Your task to perform on an android device: find which apps use the phone's location Image 0: 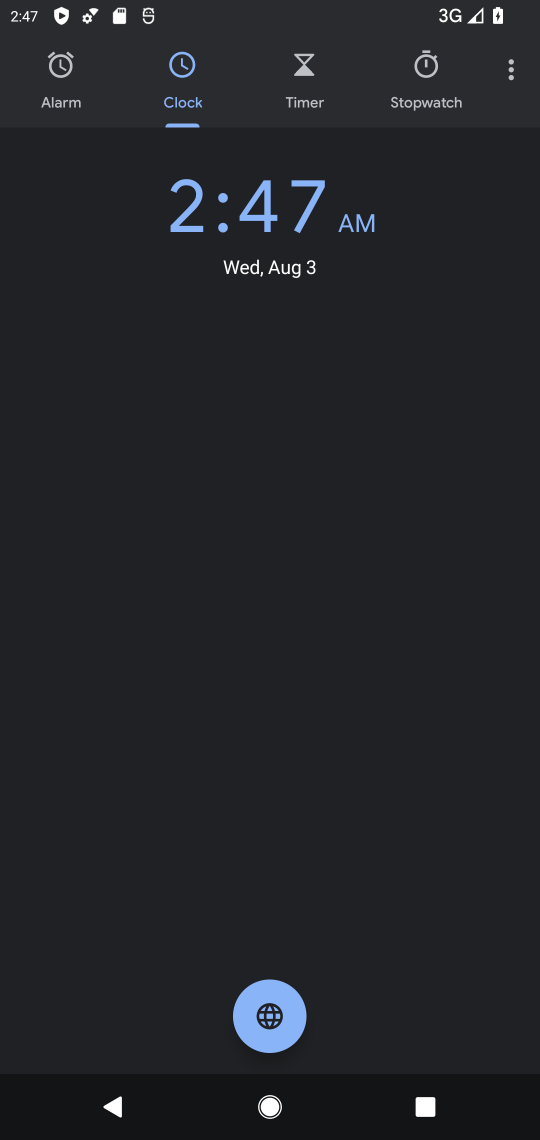
Step 0: press home button
Your task to perform on an android device: find which apps use the phone's location Image 1: 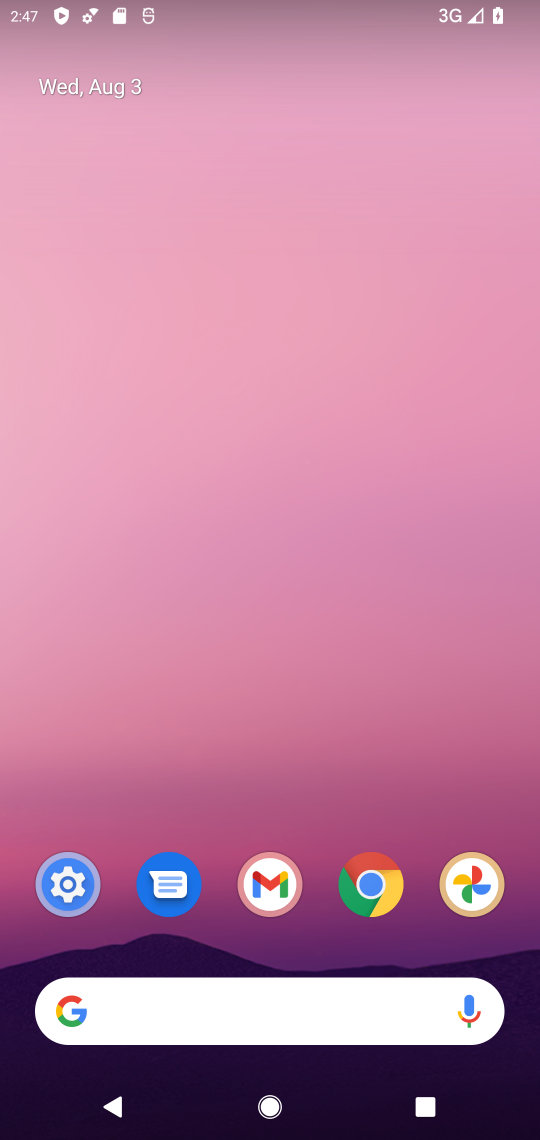
Step 1: click (54, 874)
Your task to perform on an android device: find which apps use the phone's location Image 2: 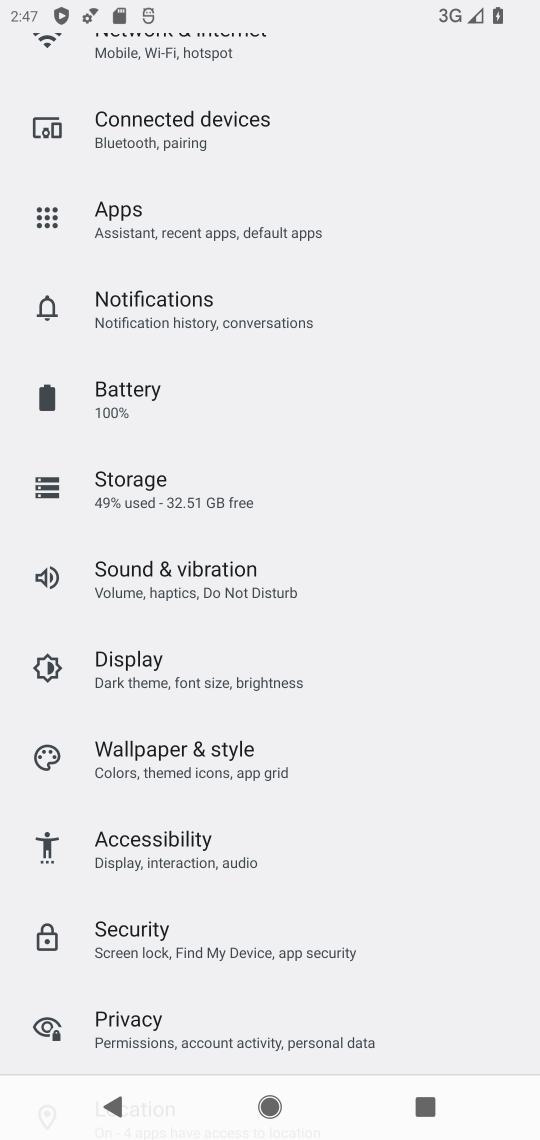
Step 2: drag from (228, 779) to (224, 462)
Your task to perform on an android device: find which apps use the phone's location Image 3: 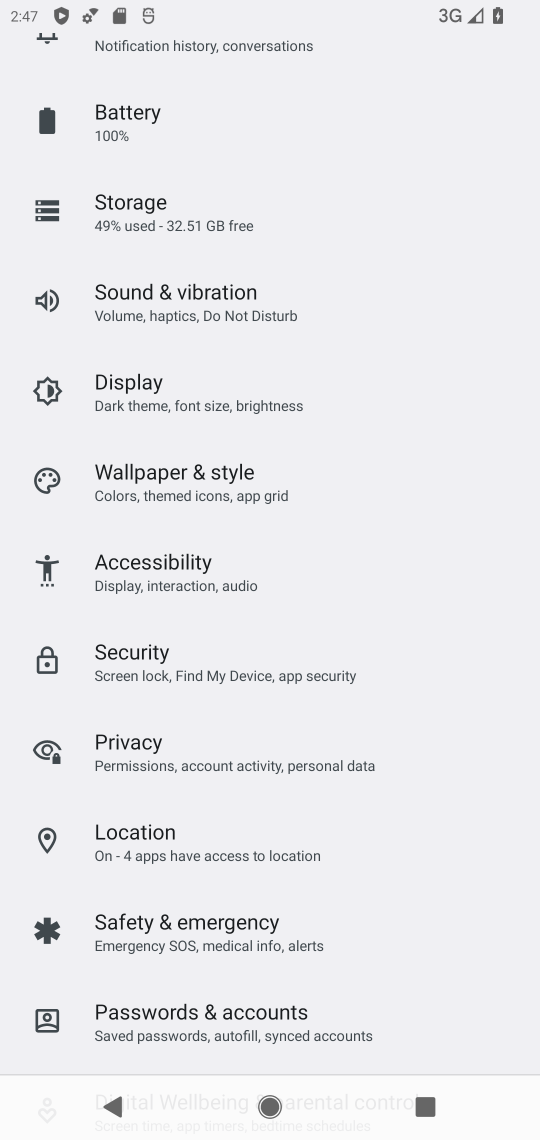
Step 3: click (134, 864)
Your task to perform on an android device: find which apps use the phone's location Image 4: 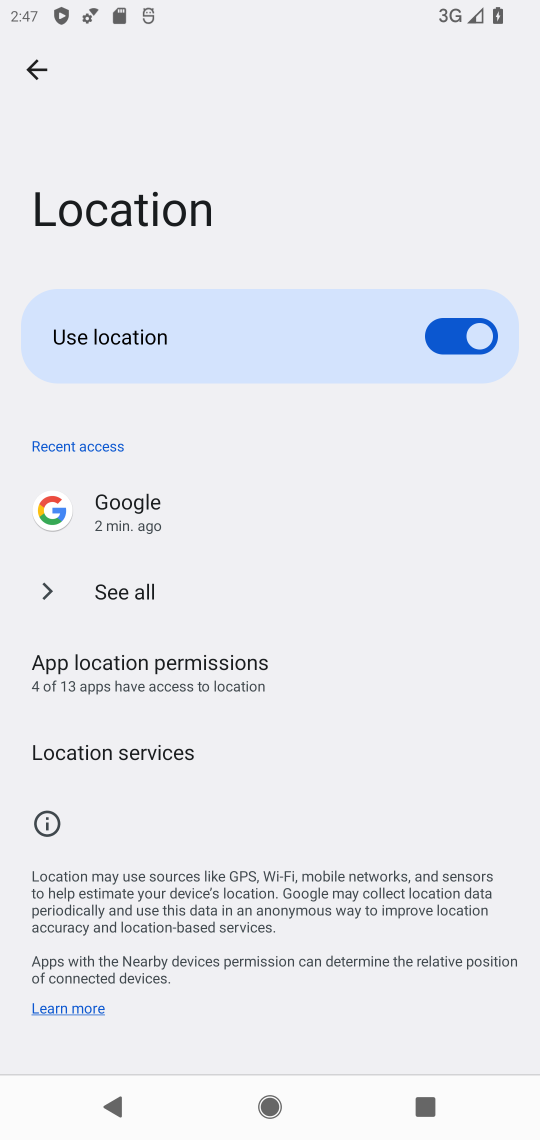
Step 4: task complete